Your task to perform on an android device: toggle pop-ups in chrome Image 0: 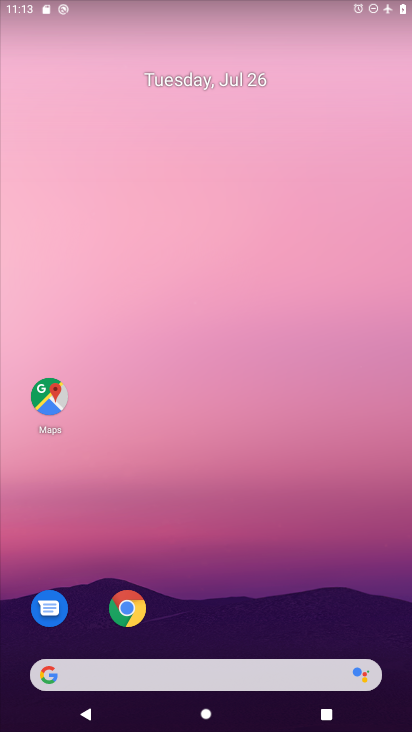
Step 0: drag from (253, 620) to (189, 67)
Your task to perform on an android device: toggle pop-ups in chrome Image 1: 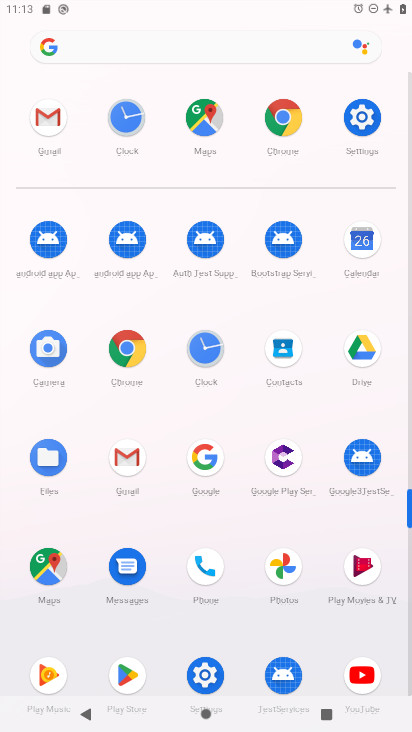
Step 1: click (283, 114)
Your task to perform on an android device: toggle pop-ups in chrome Image 2: 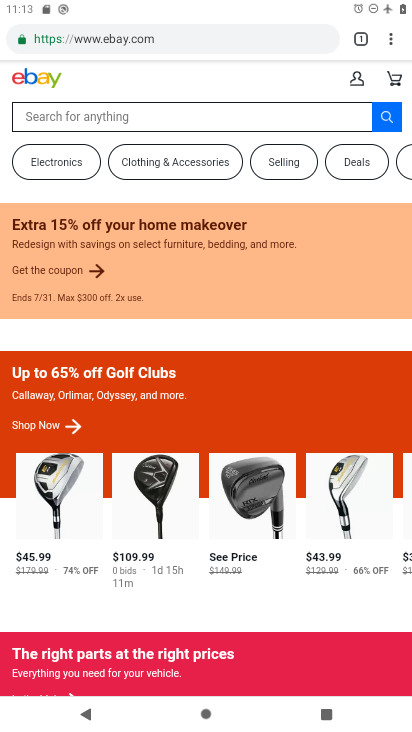
Step 2: drag from (388, 32) to (271, 435)
Your task to perform on an android device: toggle pop-ups in chrome Image 3: 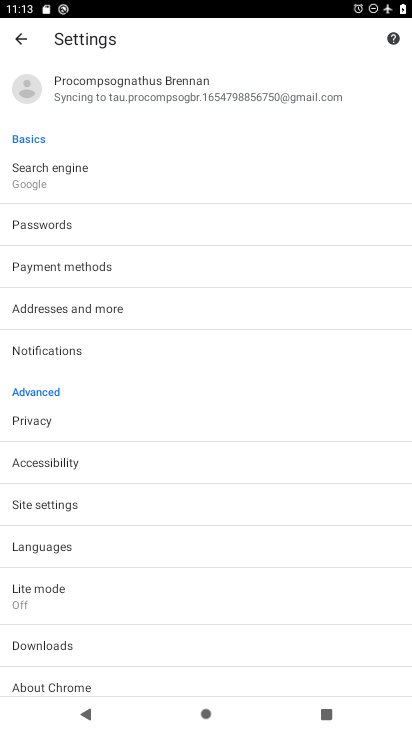
Step 3: click (59, 495)
Your task to perform on an android device: toggle pop-ups in chrome Image 4: 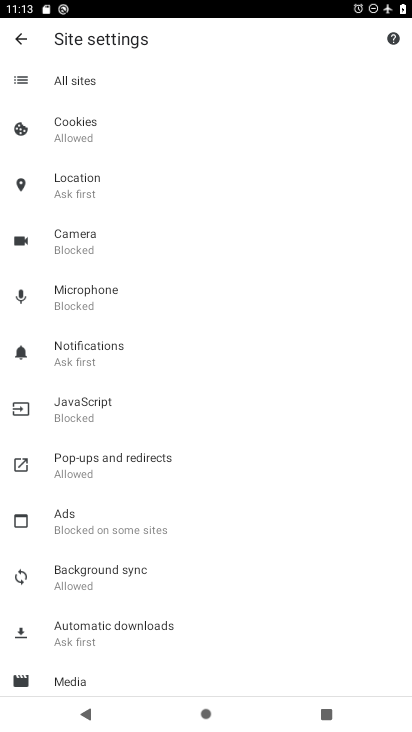
Step 4: click (94, 453)
Your task to perform on an android device: toggle pop-ups in chrome Image 5: 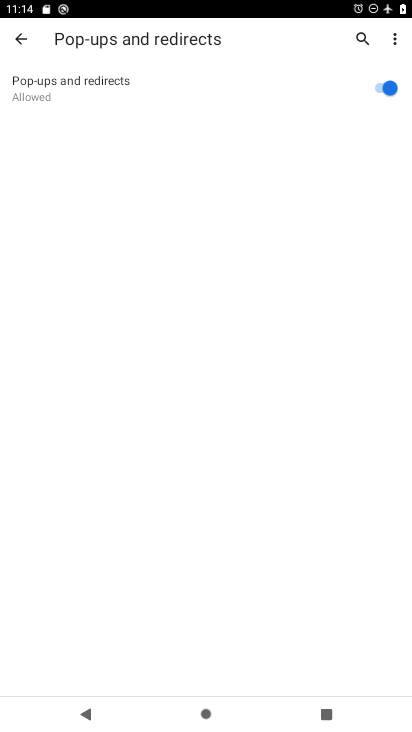
Step 5: click (391, 85)
Your task to perform on an android device: toggle pop-ups in chrome Image 6: 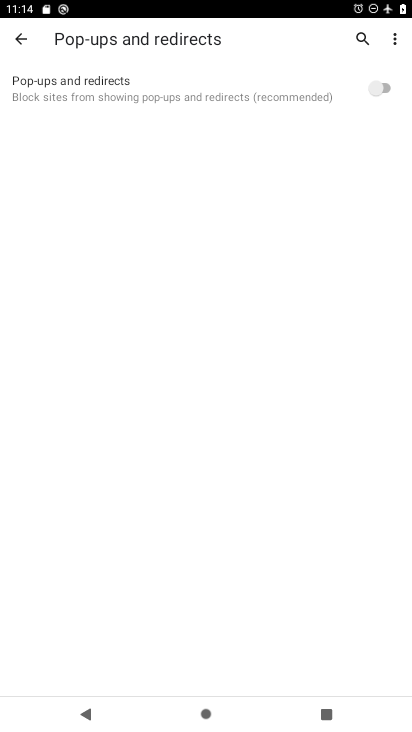
Step 6: task complete